Your task to perform on an android device: How much does a 3 bedroom apartment rent for in Boston? Image 0: 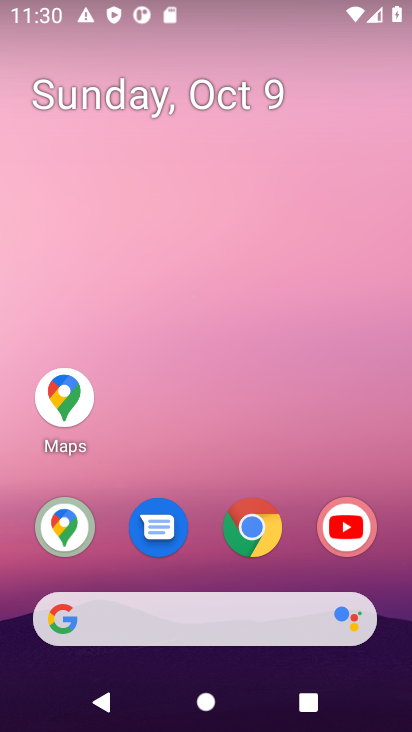
Step 0: click (263, 537)
Your task to perform on an android device: How much does a 3 bedroom apartment rent for in Boston? Image 1: 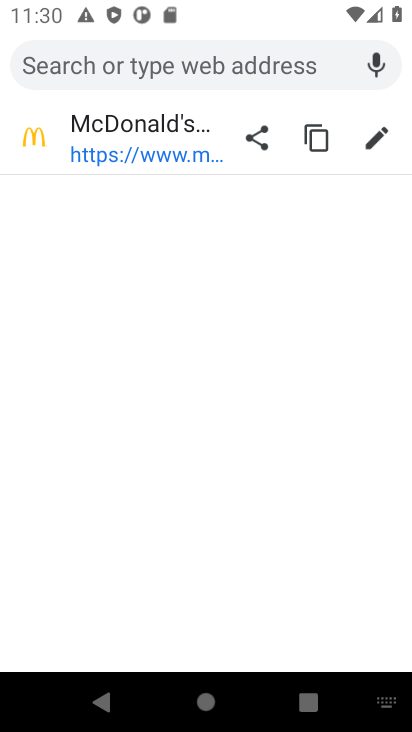
Step 1: click (270, 72)
Your task to perform on an android device: How much does a 3 bedroom apartment rent for in Boston? Image 2: 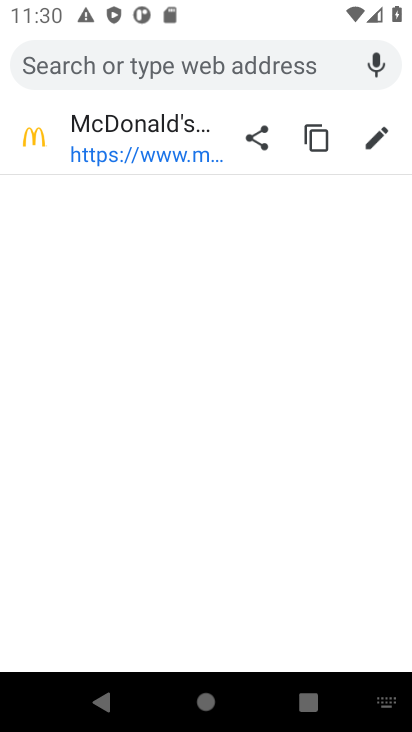
Step 2: type "How much does a 3 bedroom apartment rent for in Boston?"
Your task to perform on an android device: How much does a 3 bedroom apartment rent for in Boston? Image 3: 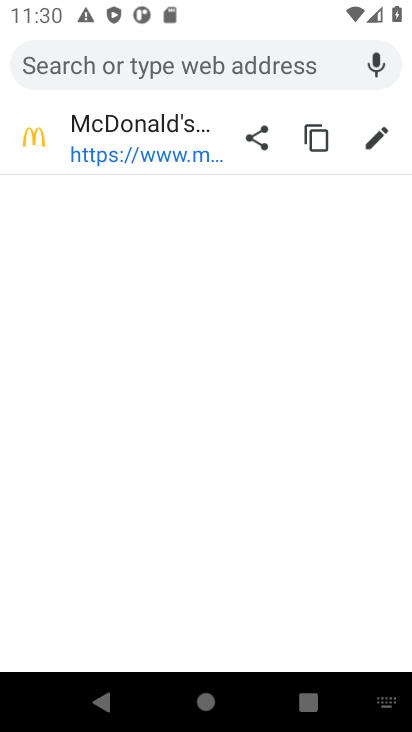
Step 3: click (305, 68)
Your task to perform on an android device: How much does a 3 bedroom apartment rent for in Boston? Image 4: 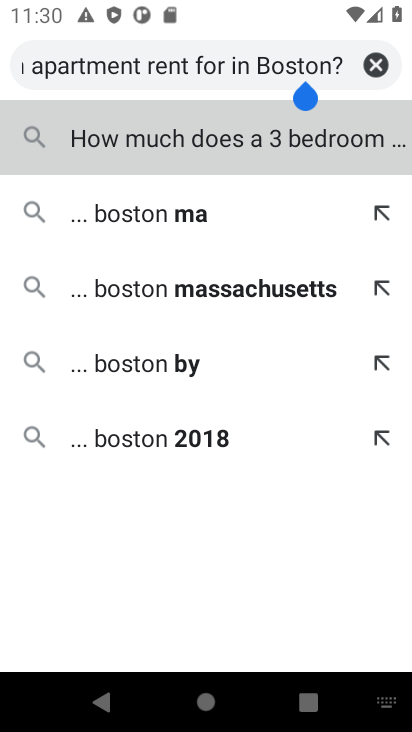
Step 4: click (270, 138)
Your task to perform on an android device: How much does a 3 bedroom apartment rent for in Boston? Image 5: 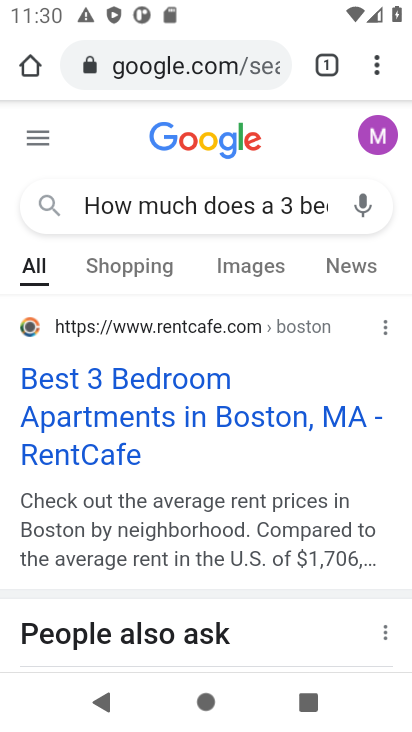
Step 5: click (136, 431)
Your task to perform on an android device: How much does a 3 bedroom apartment rent for in Boston? Image 6: 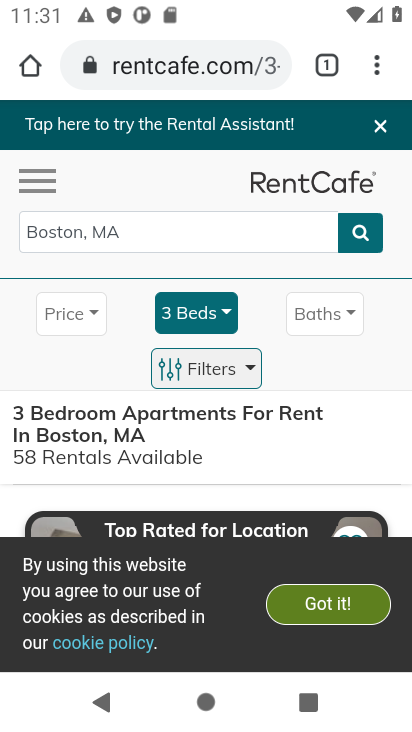
Step 6: drag from (243, 493) to (228, 184)
Your task to perform on an android device: How much does a 3 bedroom apartment rent for in Boston? Image 7: 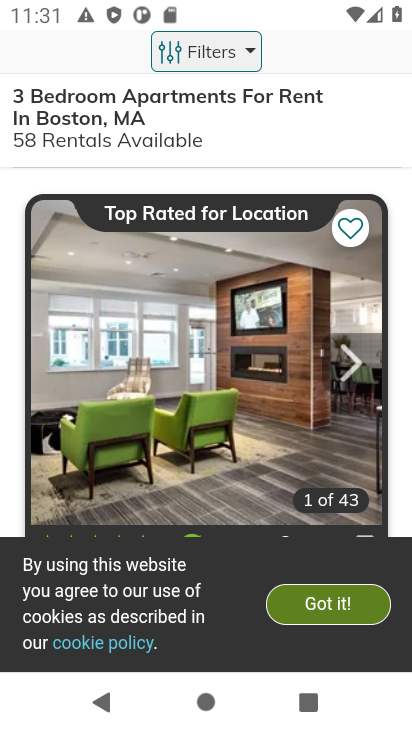
Step 7: click (315, 600)
Your task to perform on an android device: How much does a 3 bedroom apartment rent for in Boston? Image 8: 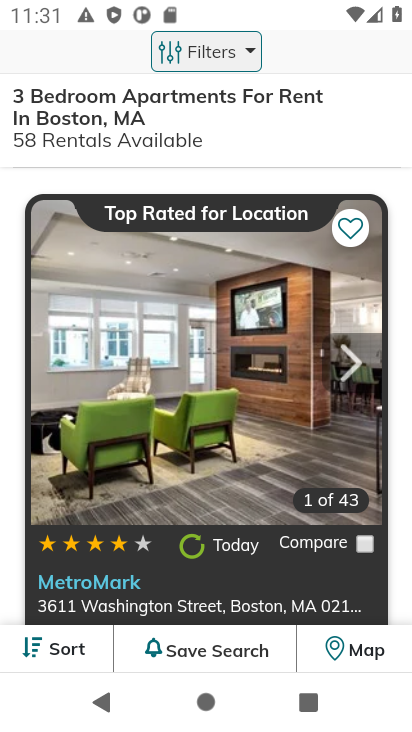
Step 8: task complete